Your task to perform on an android device: turn on the 24-hour format for clock Image 0: 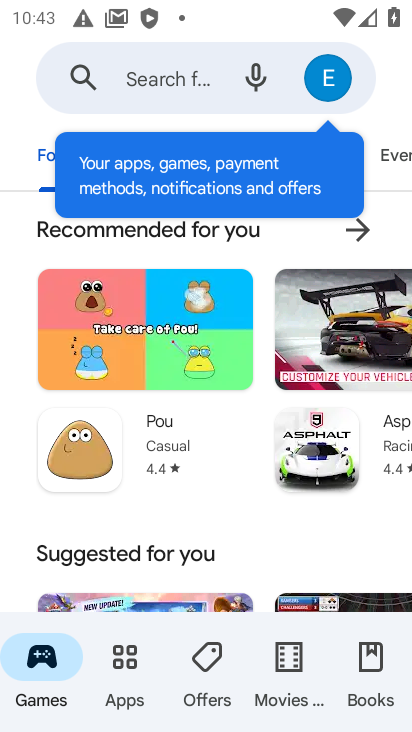
Step 0: press back button
Your task to perform on an android device: turn on the 24-hour format for clock Image 1: 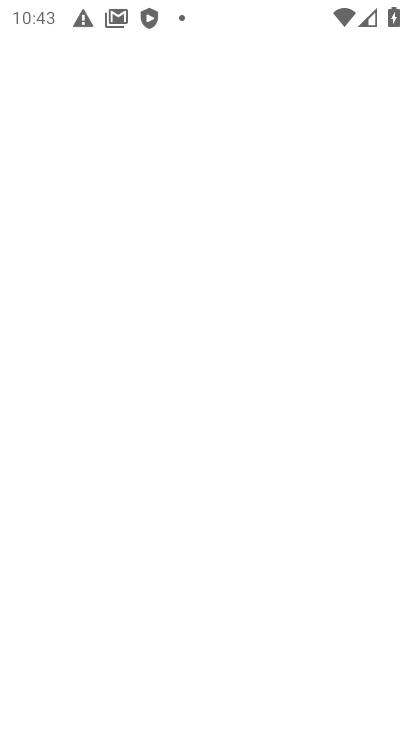
Step 1: press back button
Your task to perform on an android device: turn on the 24-hour format for clock Image 2: 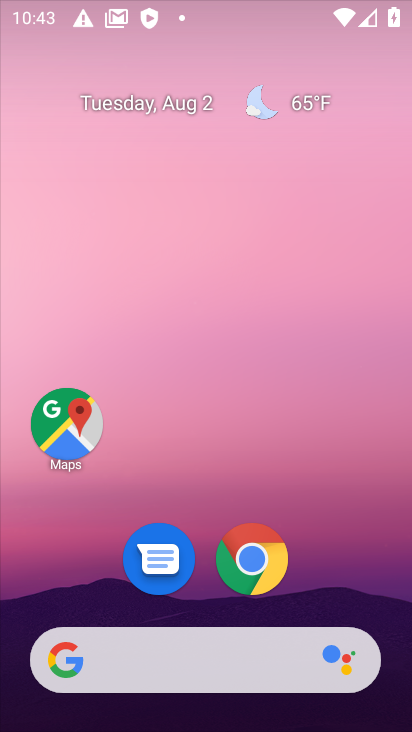
Step 2: press back button
Your task to perform on an android device: turn on the 24-hour format for clock Image 3: 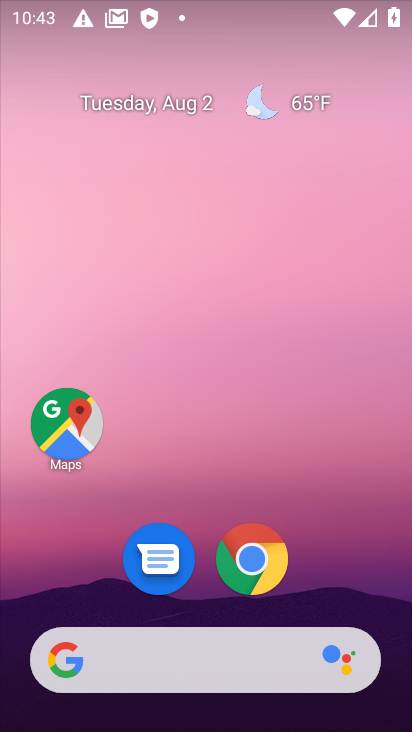
Step 3: click (129, 157)
Your task to perform on an android device: turn on the 24-hour format for clock Image 4: 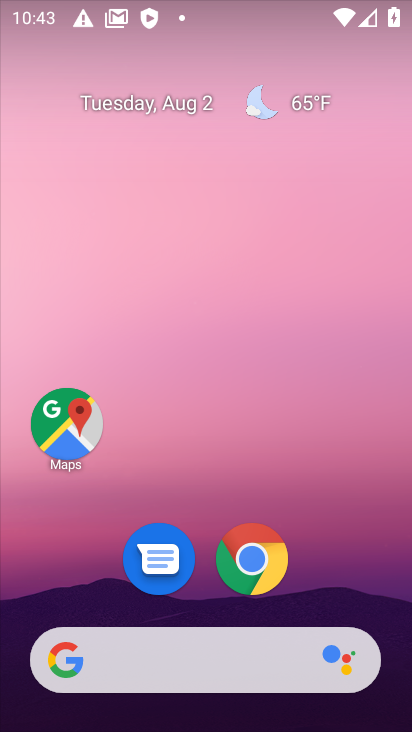
Step 4: drag from (180, 226) to (180, 102)
Your task to perform on an android device: turn on the 24-hour format for clock Image 5: 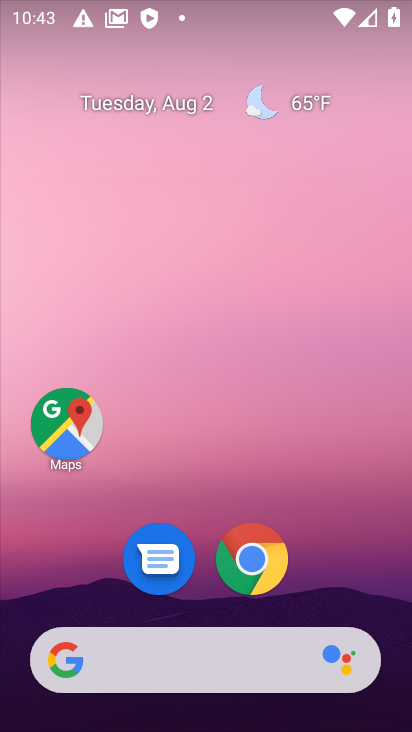
Step 5: drag from (209, 468) to (209, 110)
Your task to perform on an android device: turn on the 24-hour format for clock Image 6: 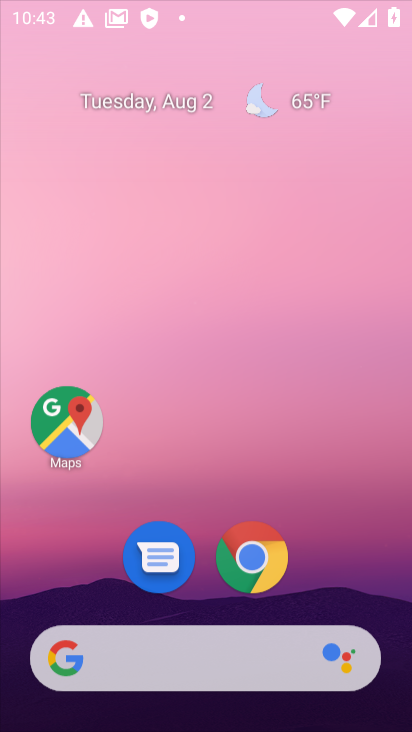
Step 6: click (223, 215)
Your task to perform on an android device: turn on the 24-hour format for clock Image 7: 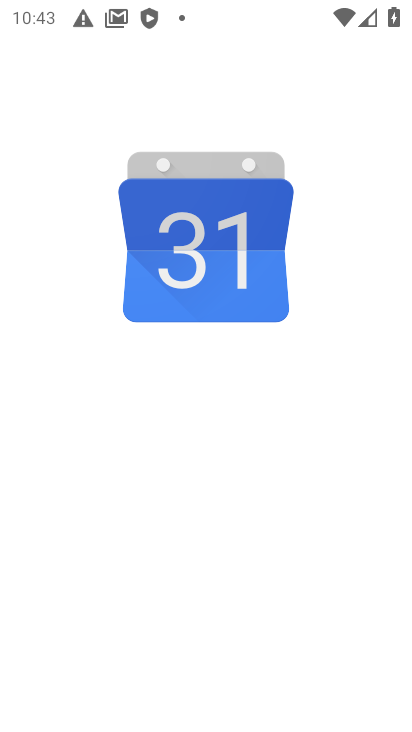
Step 7: drag from (218, 589) to (194, 111)
Your task to perform on an android device: turn on the 24-hour format for clock Image 8: 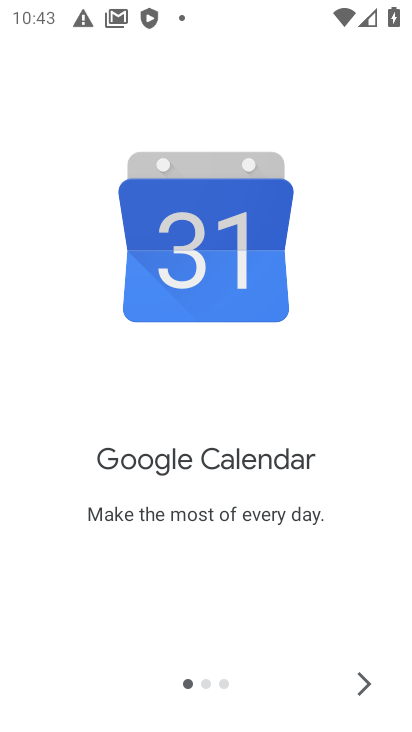
Step 8: press back button
Your task to perform on an android device: turn on the 24-hour format for clock Image 9: 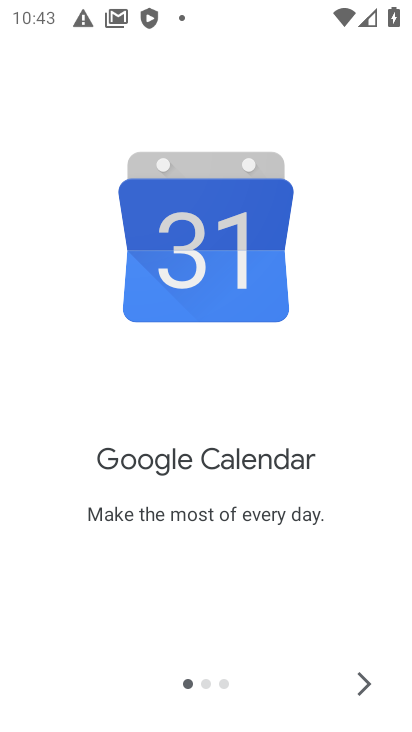
Step 9: press back button
Your task to perform on an android device: turn on the 24-hour format for clock Image 10: 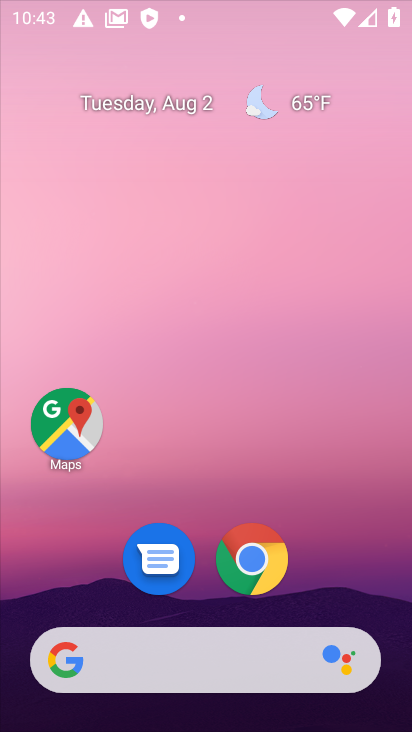
Step 10: press back button
Your task to perform on an android device: turn on the 24-hour format for clock Image 11: 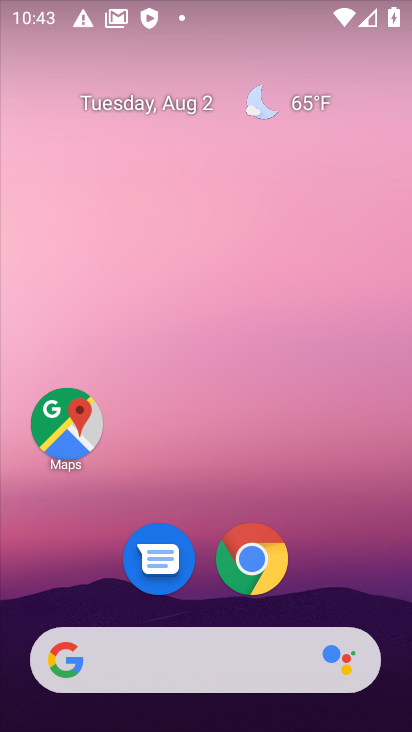
Step 11: press home button
Your task to perform on an android device: turn on the 24-hour format for clock Image 12: 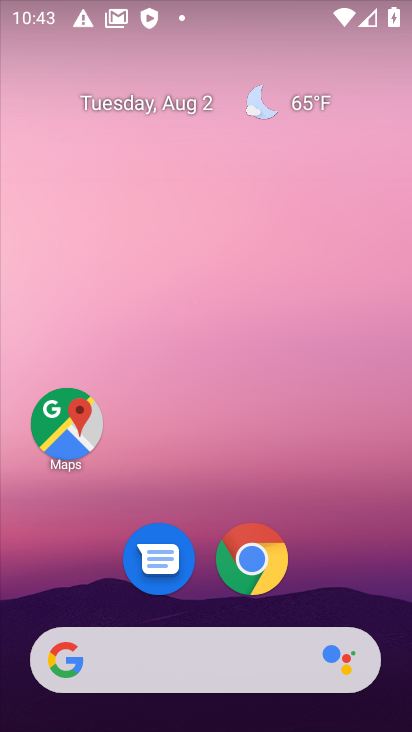
Step 12: drag from (304, 677) to (266, 205)
Your task to perform on an android device: turn on the 24-hour format for clock Image 13: 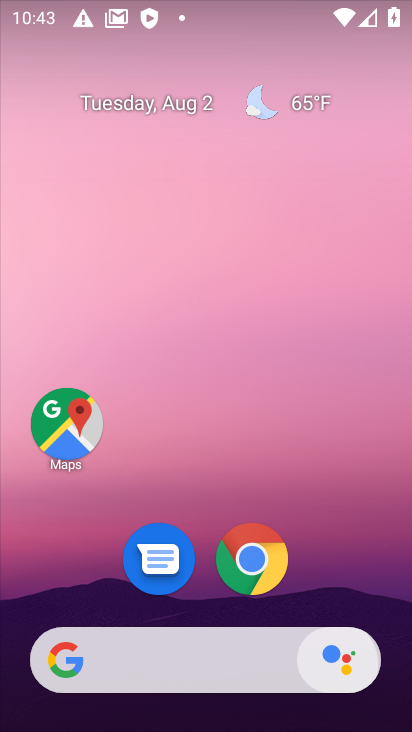
Step 13: drag from (187, 551) to (159, 332)
Your task to perform on an android device: turn on the 24-hour format for clock Image 14: 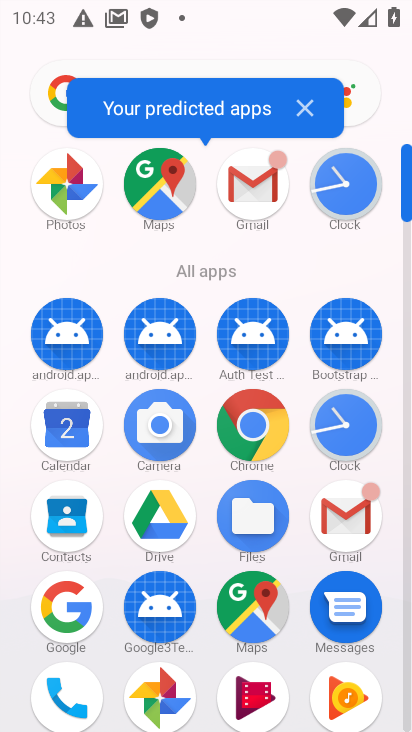
Step 14: click (347, 431)
Your task to perform on an android device: turn on the 24-hour format for clock Image 15: 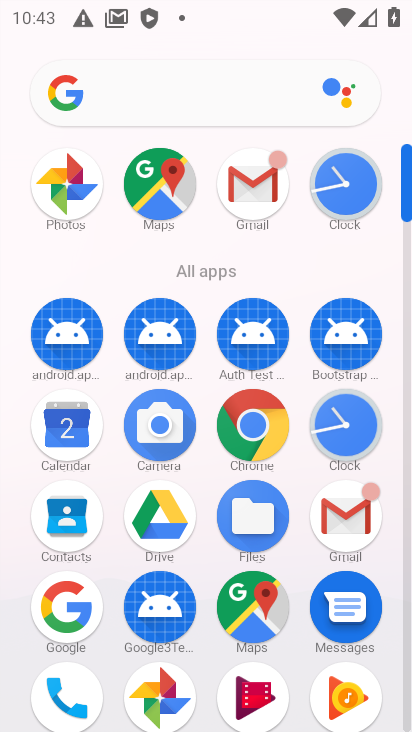
Step 15: click (347, 431)
Your task to perform on an android device: turn on the 24-hour format for clock Image 16: 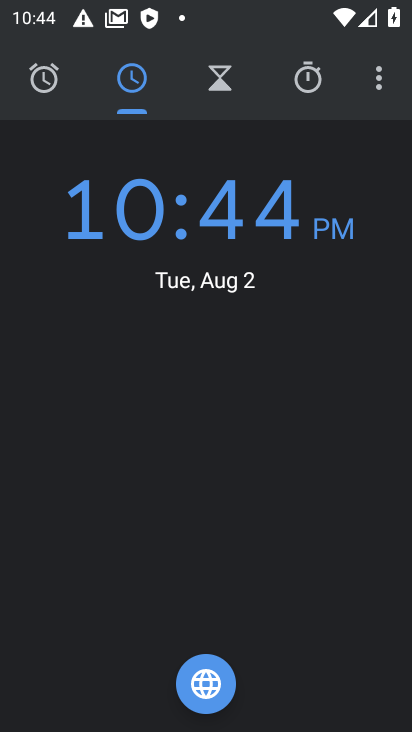
Step 16: click (383, 72)
Your task to perform on an android device: turn on the 24-hour format for clock Image 17: 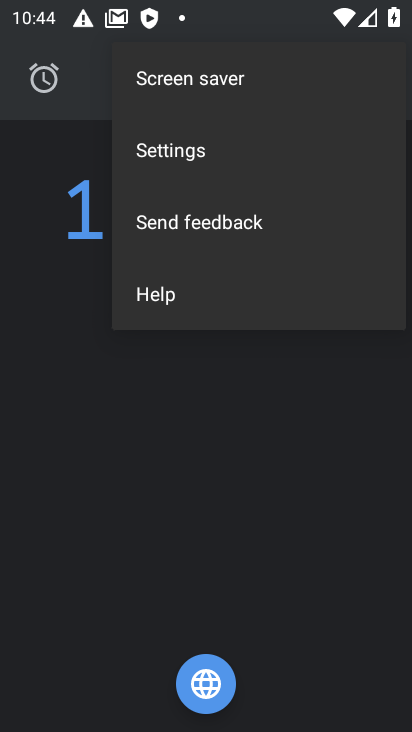
Step 17: click (186, 146)
Your task to perform on an android device: turn on the 24-hour format for clock Image 18: 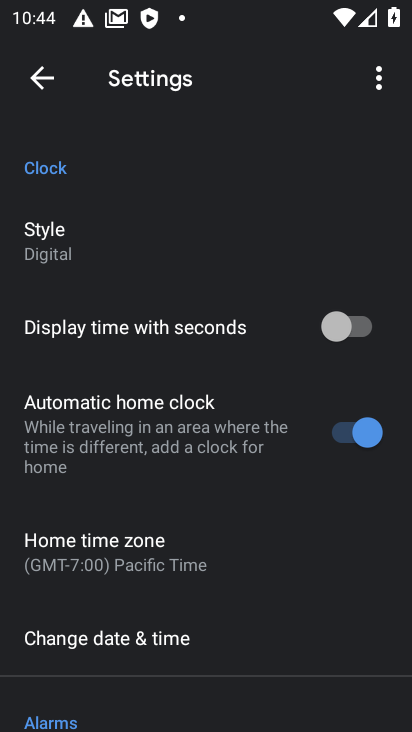
Step 18: drag from (117, 577) to (88, 245)
Your task to perform on an android device: turn on the 24-hour format for clock Image 19: 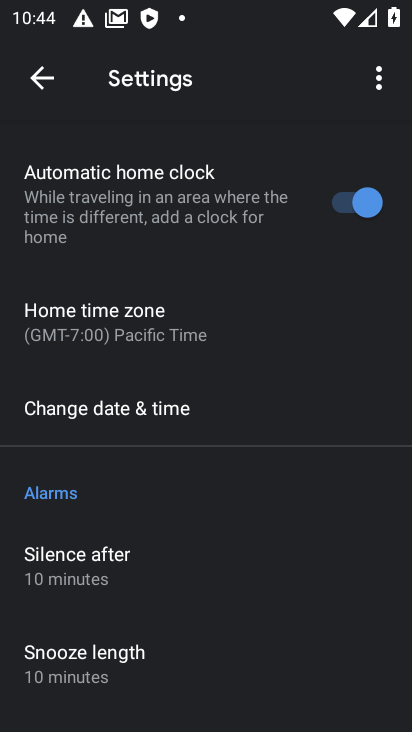
Step 19: click (112, 417)
Your task to perform on an android device: turn on the 24-hour format for clock Image 20: 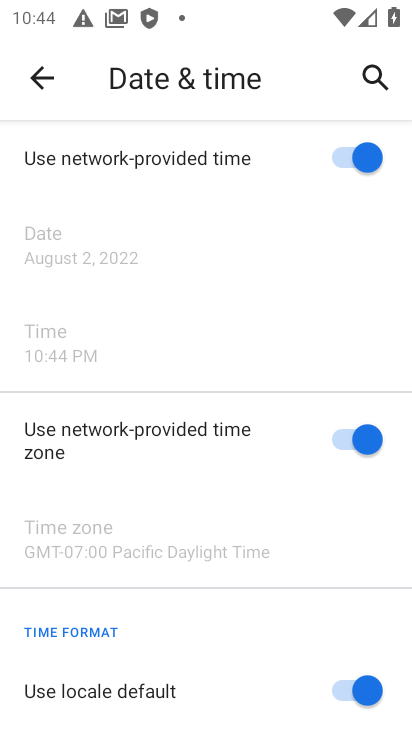
Step 20: drag from (150, 434) to (113, 126)
Your task to perform on an android device: turn on the 24-hour format for clock Image 21: 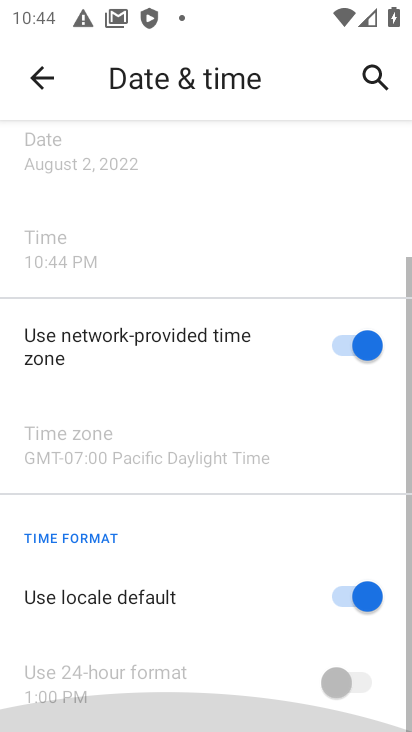
Step 21: drag from (179, 441) to (168, 187)
Your task to perform on an android device: turn on the 24-hour format for clock Image 22: 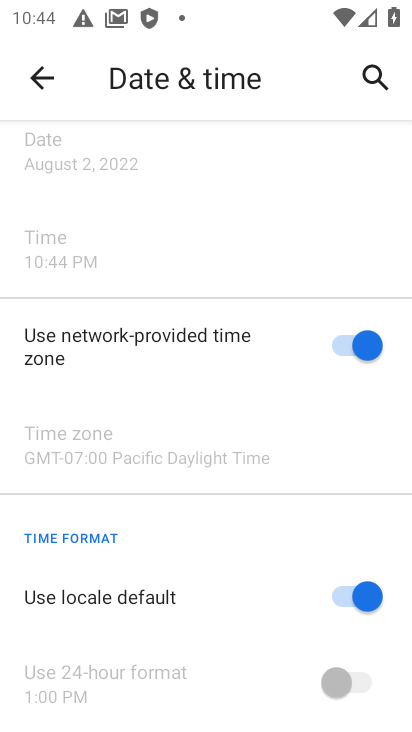
Step 22: click (333, 676)
Your task to perform on an android device: turn on the 24-hour format for clock Image 23: 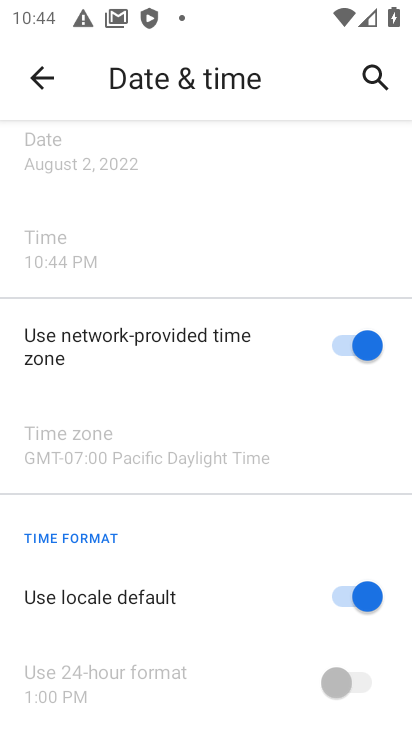
Step 23: click (369, 598)
Your task to perform on an android device: turn on the 24-hour format for clock Image 24: 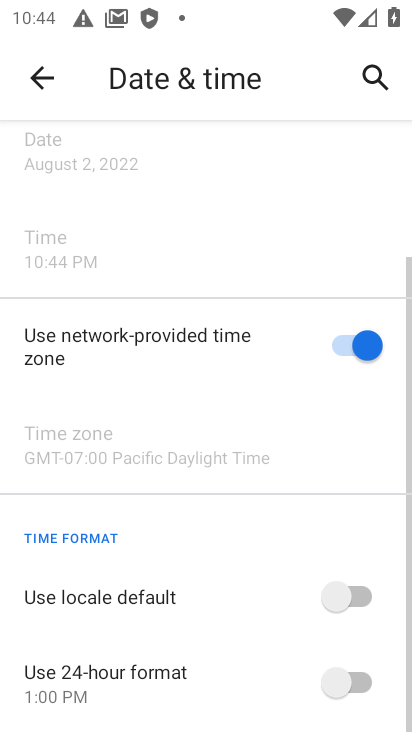
Step 24: click (334, 679)
Your task to perform on an android device: turn on the 24-hour format for clock Image 25: 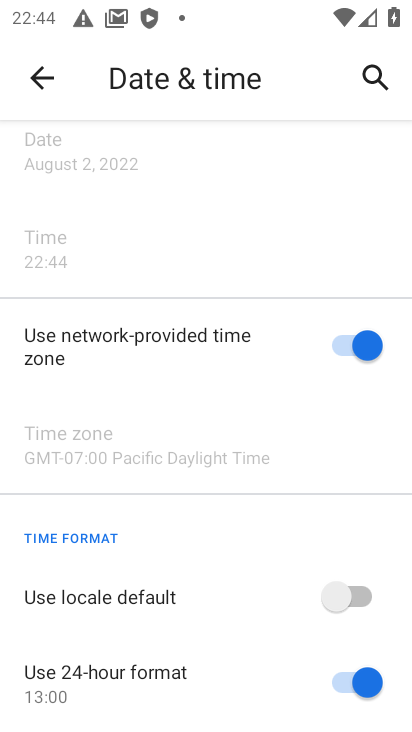
Step 25: task complete